Your task to perform on an android device: toggle improve location accuracy Image 0: 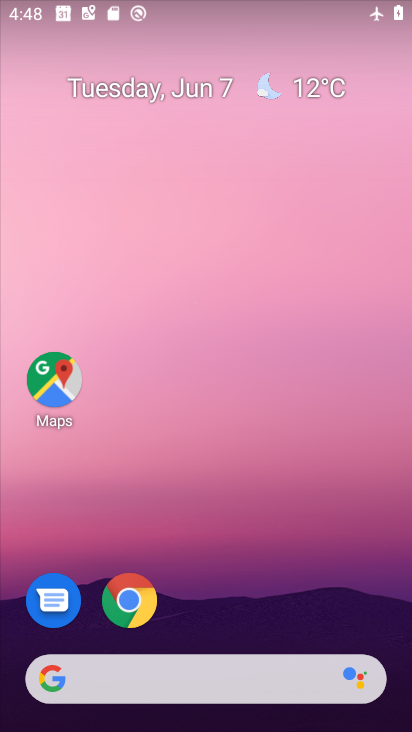
Step 0: drag from (229, 576) to (231, 209)
Your task to perform on an android device: toggle improve location accuracy Image 1: 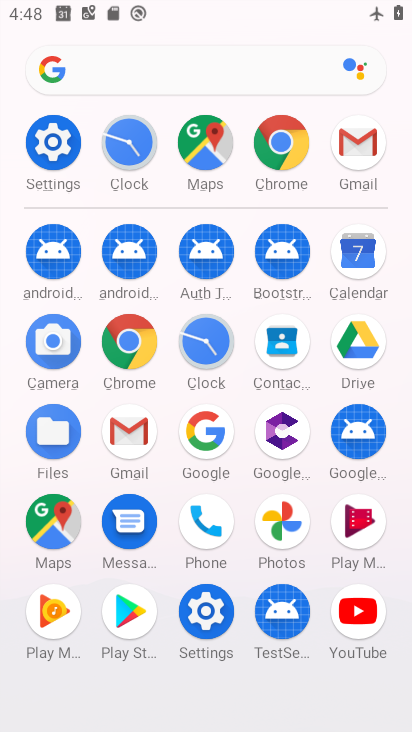
Step 1: click (42, 134)
Your task to perform on an android device: toggle improve location accuracy Image 2: 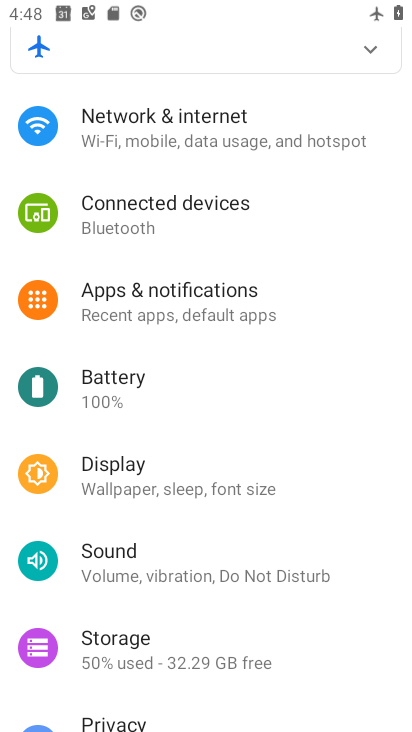
Step 2: drag from (208, 658) to (295, 181)
Your task to perform on an android device: toggle improve location accuracy Image 3: 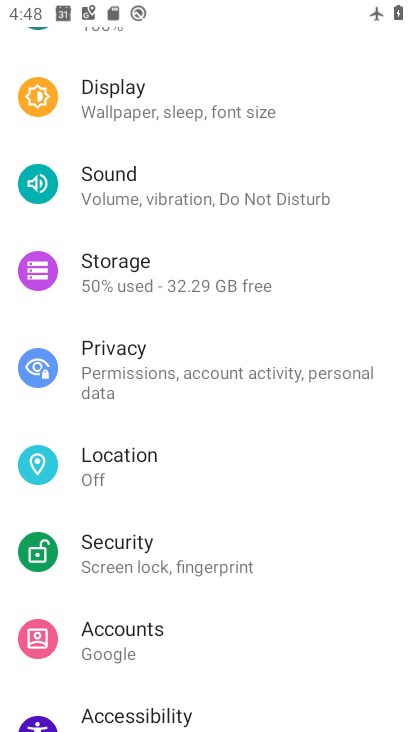
Step 3: click (160, 455)
Your task to perform on an android device: toggle improve location accuracy Image 4: 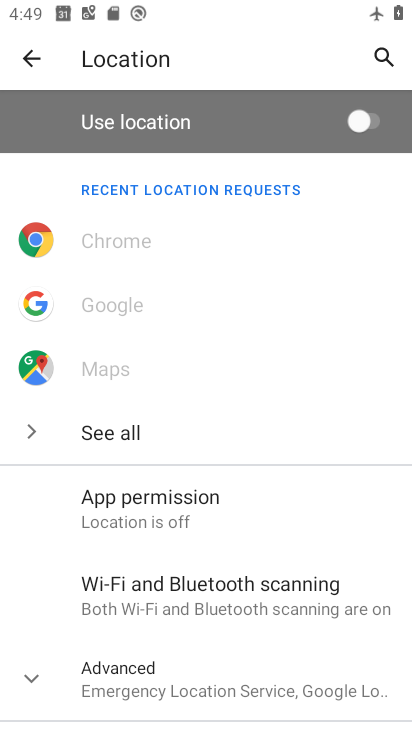
Step 4: click (223, 669)
Your task to perform on an android device: toggle improve location accuracy Image 5: 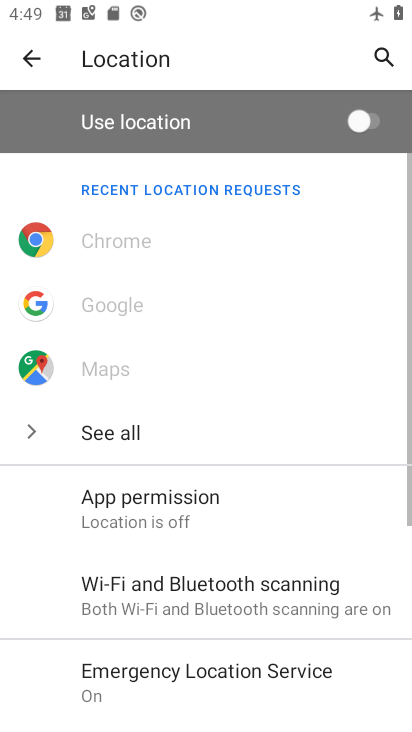
Step 5: drag from (361, 679) to (393, 202)
Your task to perform on an android device: toggle improve location accuracy Image 6: 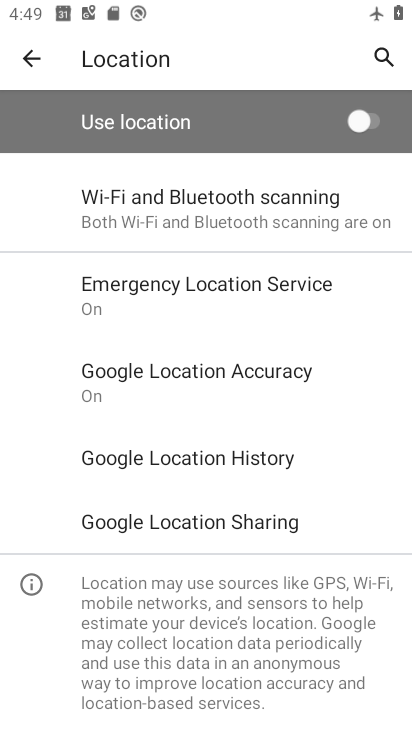
Step 6: click (243, 364)
Your task to perform on an android device: toggle improve location accuracy Image 7: 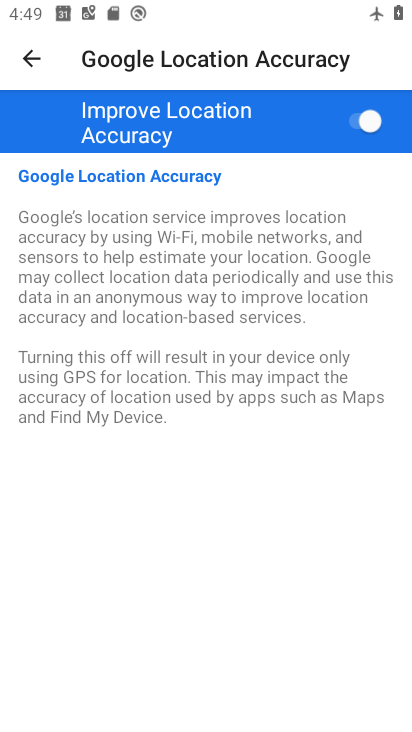
Step 7: click (351, 121)
Your task to perform on an android device: toggle improve location accuracy Image 8: 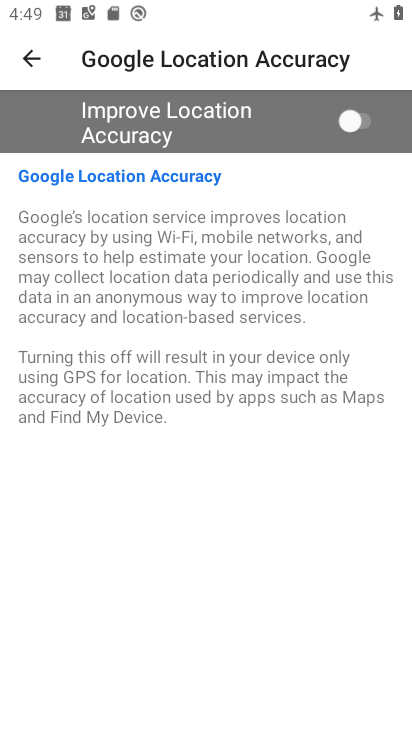
Step 8: task complete